Your task to perform on an android device: open a new tab in the chrome app Image 0: 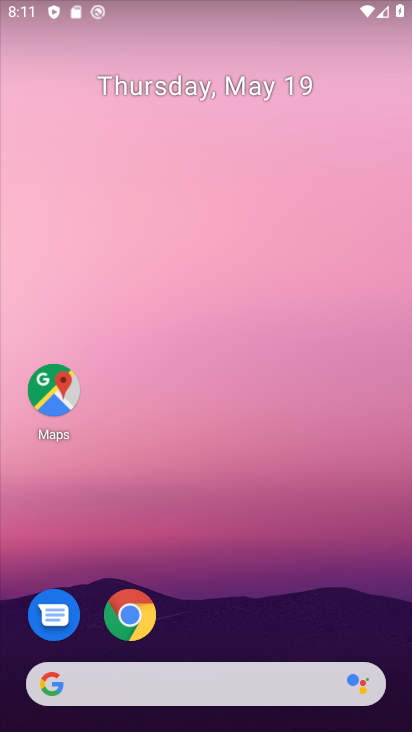
Step 0: click (349, 546)
Your task to perform on an android device: open a new tab in the chrome app Image 1: 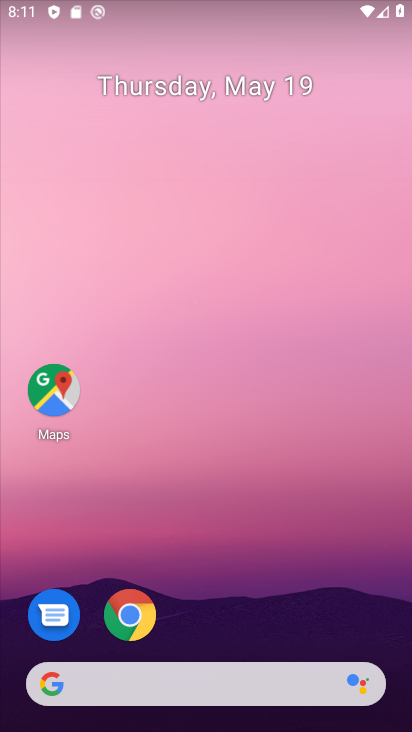
Step 1: click (138, 622)
Your task to perform on an android device: open a new tab in the chrome app Image 2: 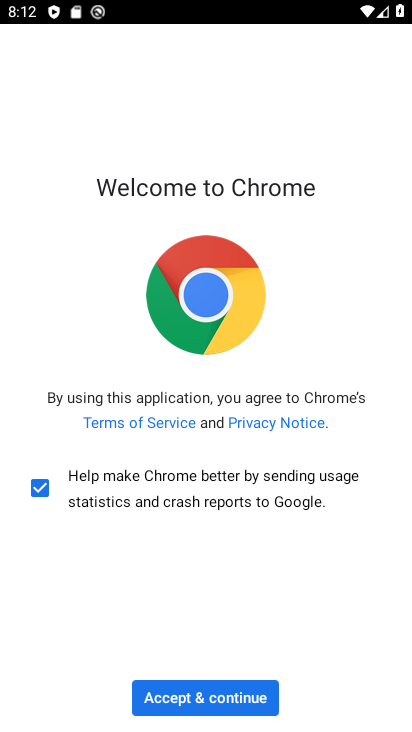
Step 2: click (254, 688)
Your task to perform on an android device: open a new tab in the chrome app Image 3: 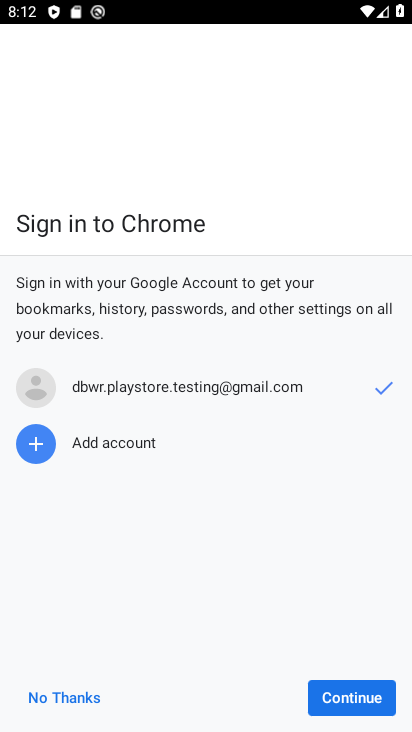
Step 3: click (381, 701)
Your task to perform on an android device: open a new tab in the chrome app Image 4: 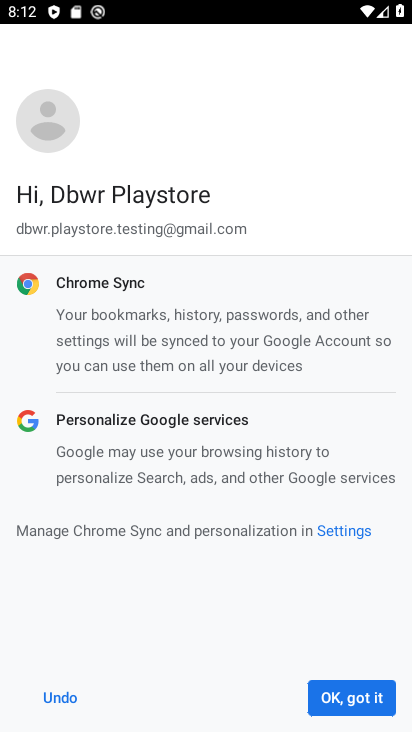
Step 4: click (381, 701)
Your task to perform on an android device: open a new tab in the chrome app Image 5: 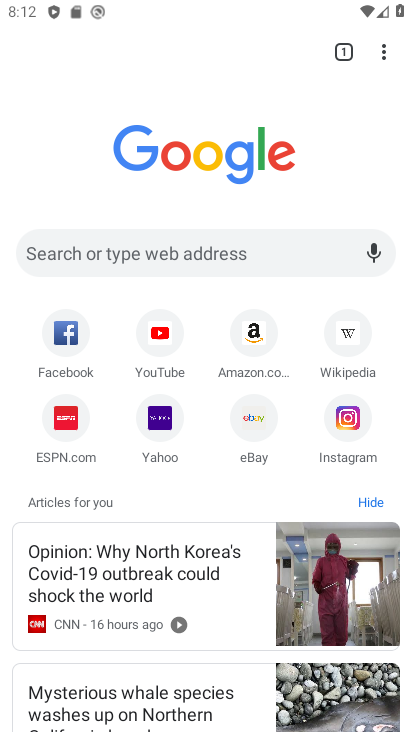
Step 5: click (382, 50)
Your task to perform on an android device: open a new tab in the chrome app Image 6: 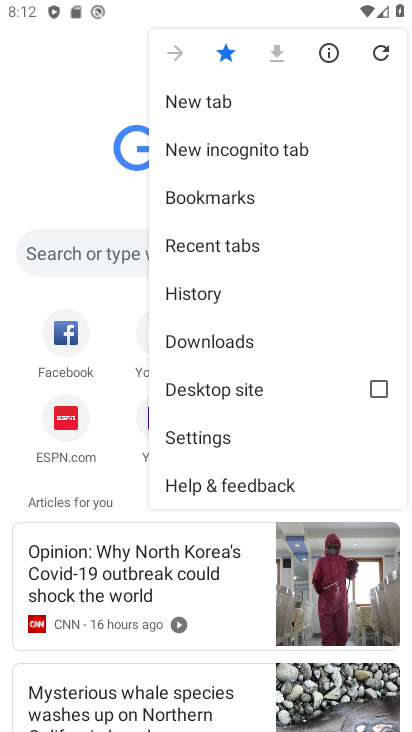
Step 6: click (217, 97)
Your task to perform on an android device: open a new tab in the chrome app Image 7: 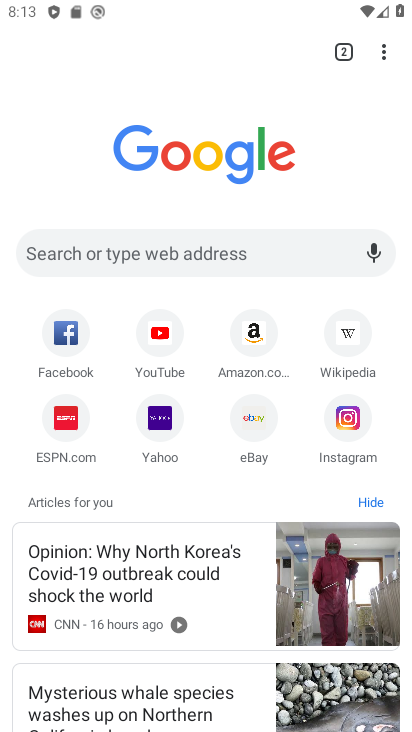
Step 7: task complete